Your task to perform on an android device: check battery use Image 0: 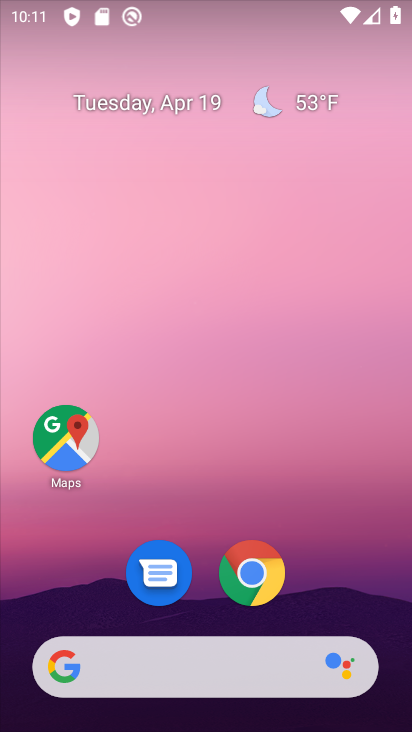
Step 0: drag from (198, 701) to (199, 89)
Your task to perform on an android device: check battery use Image 1: 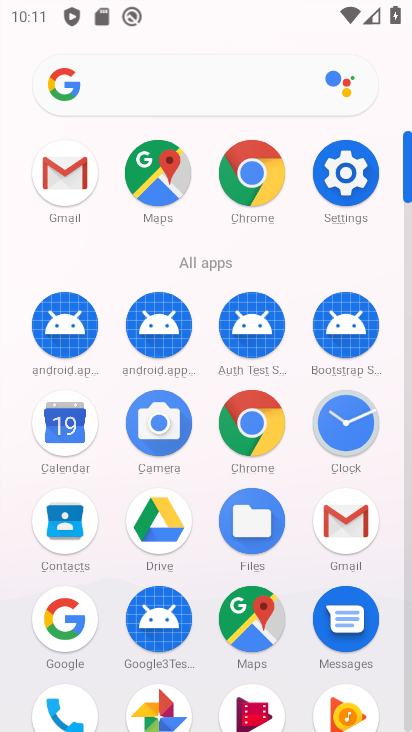
Step 1: click (346, 177)
Your task to perform on an android device: check battery use Image 2: 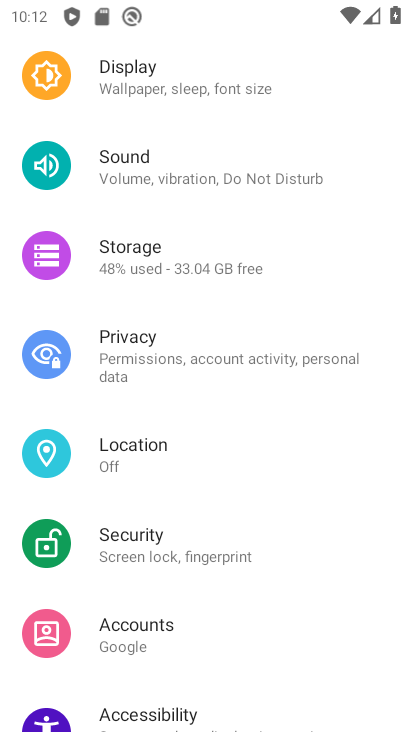
Step 2: drag from (224, 669) to (227, 186)
Your task to perform on an android device: check battery use Image 3: 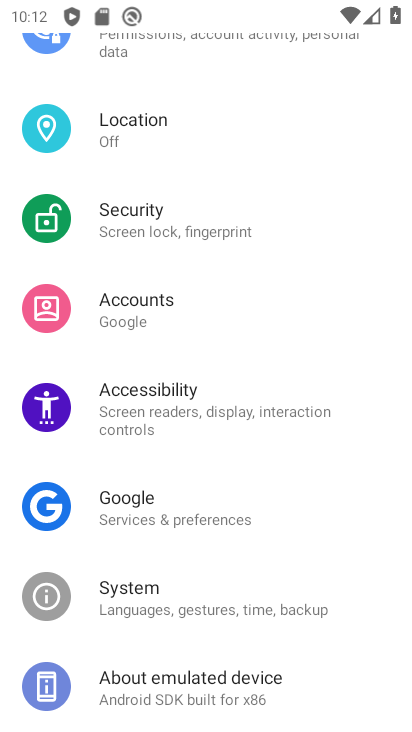
Step 3: drag from (246, 94) to (247, 621)
Your task to perform on an android device: check battery use Image 4: 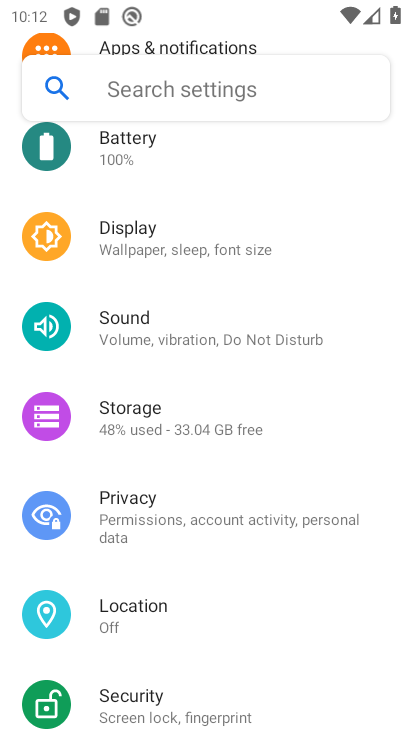
Step 4: drag from (240, 173) to (237, 482)
Your task to perform on an android device: check battery use Image 5: 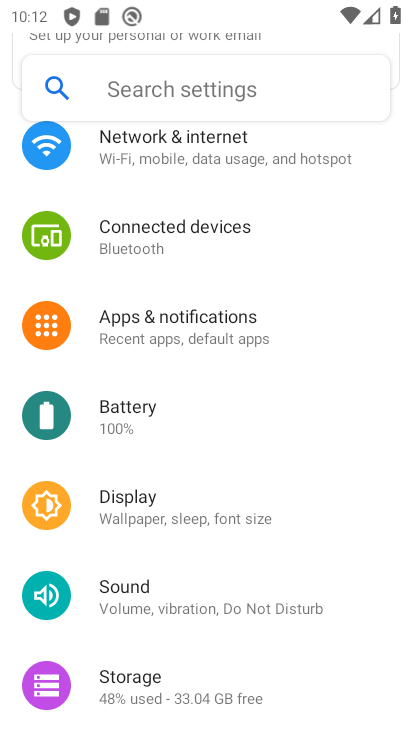
Step 5: click (116, 406)
Your task to perform on an android device: check battery use Image 6: 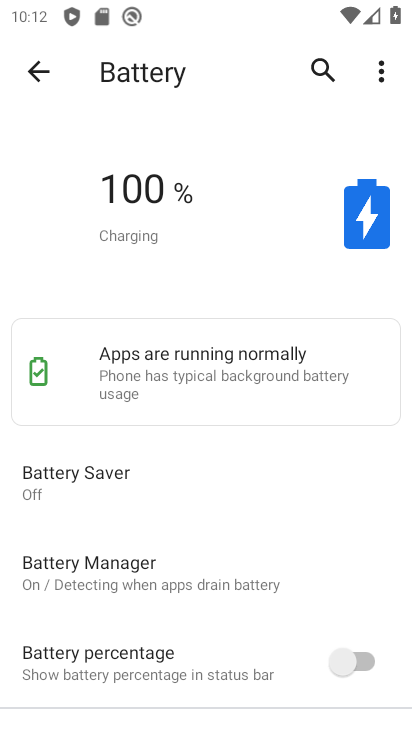
Step 6: click (381, 73)
Your task to perform on an android device: check battery use Image 7: 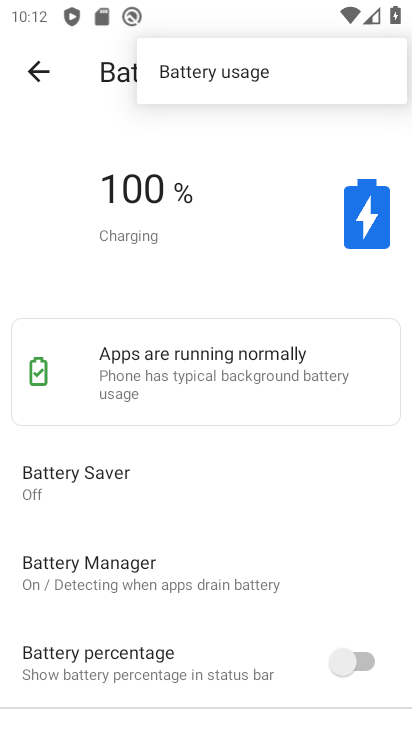
Step 7: click (210, 74)
Your task to perform on an android device: check battery use Image 8: 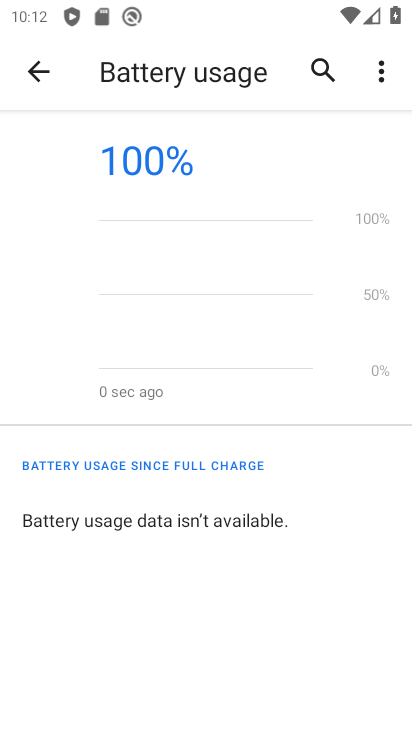
Step 8: task complete